Your task to perform on an android device: all mails in gmail Image 0: 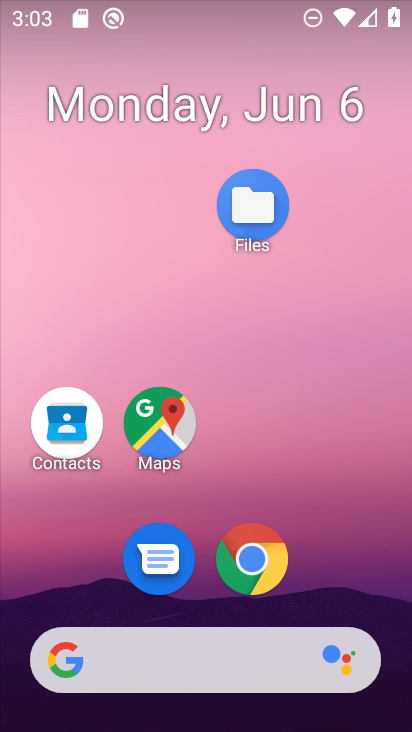
Step 0: drag from (194, 557) to (188, 4)
Your task to perform on an android device: all mails in gmail Image 1: 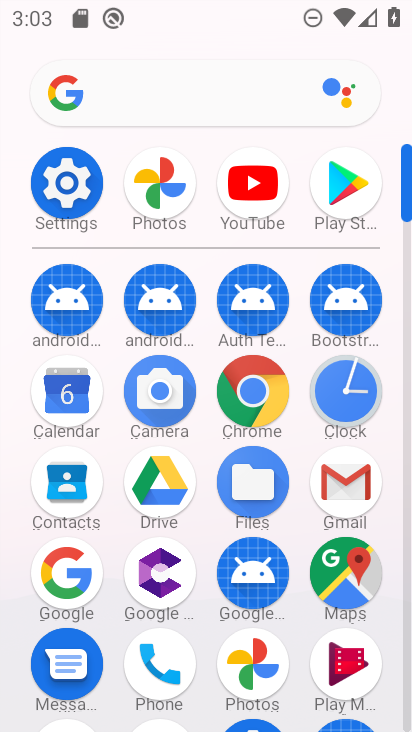
Step 1: click (342, 500)
Your task to perform on an android device: all mails in gmail Image 2: 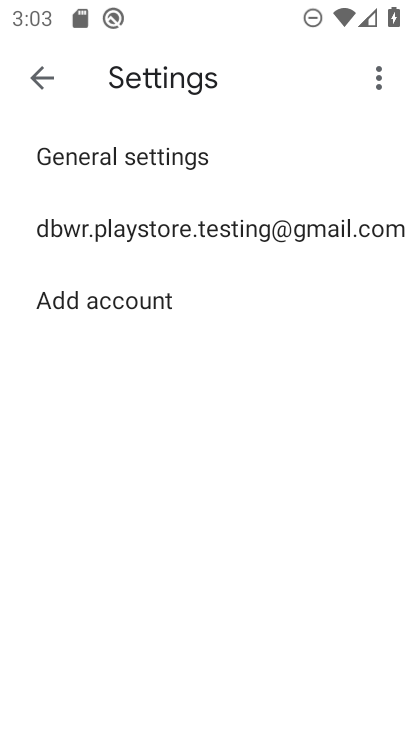
Step 2: click (33, 81)
Your task to perform on an android device: all mails in gmail Image 3: 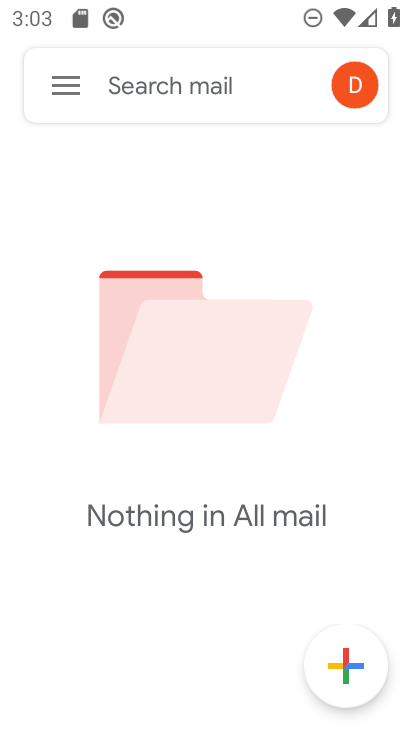
Step 3: click (58, 72)
Your task to perform on an android device: all mails in gmail Image 4: 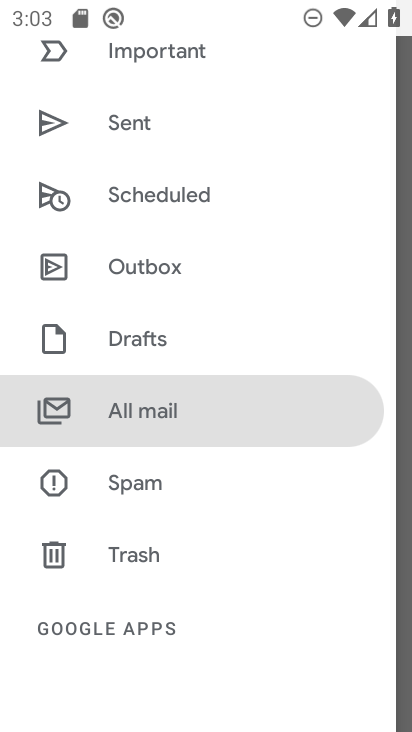
Step 4: click (186, 412)
Your task to perform on an android device: all mails in gmail Image 5: 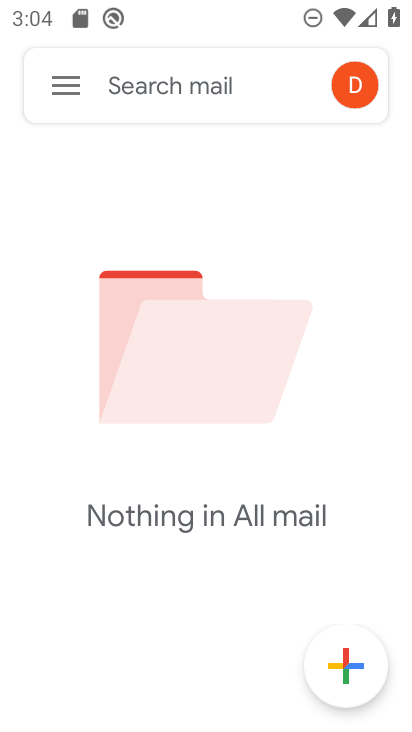
Step 5: task complete